Your task to perform on an android device: Search for seafood restaurants on Google Maps Image 0: 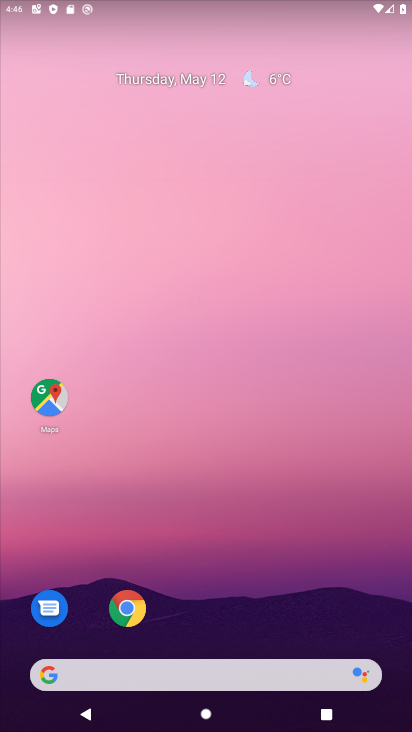
Step 0: click (52, 410)
Your task to perform on an android device: Search for seafood restaurants on Google Maps Image 1: 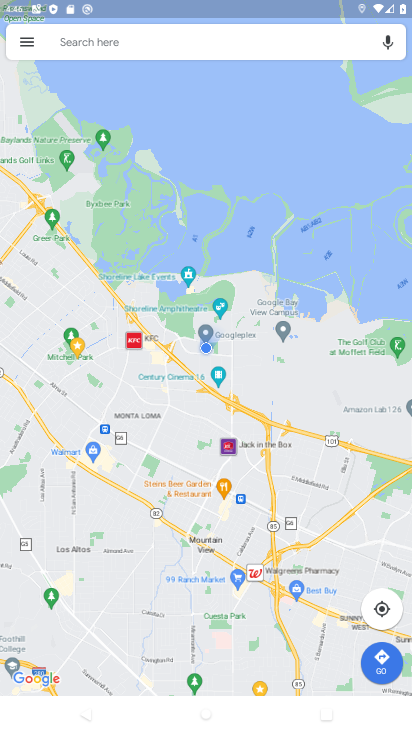
Step 1: click (250, 53)
Your task to perform on an android device: Search for seafood restaurants on Google Maps Image 2: 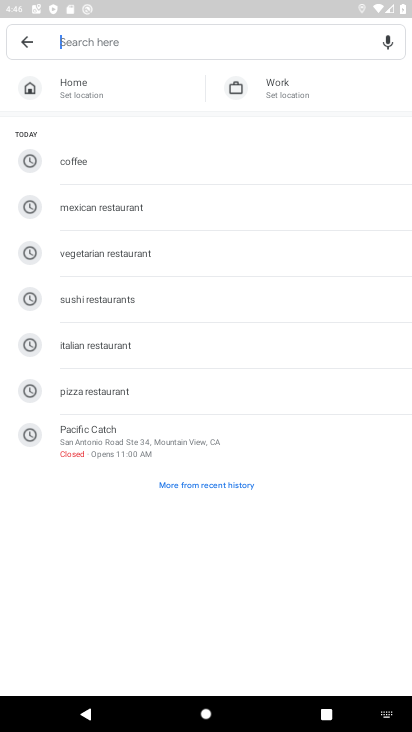
Step 2: type "se"
Your task to perform on an android device: Search for seafood restaurants on Google Maps Image 3: 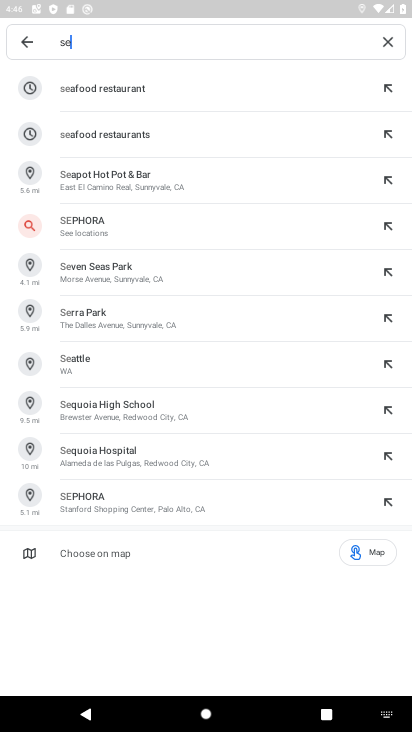
Step 3: type "afood"
Your task to perform on an android device: Search for seafood restaurants on Google Maps Image 4: 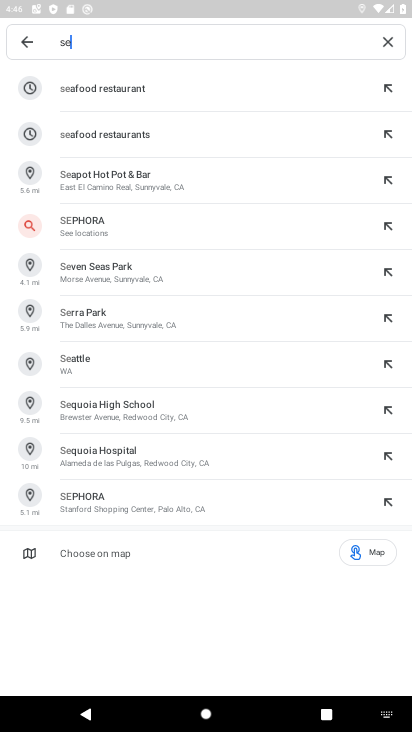
Step 4: click (130, 92)
Your task to perform on an android device: Search for seafood restaurants on Google Maps Image 5: 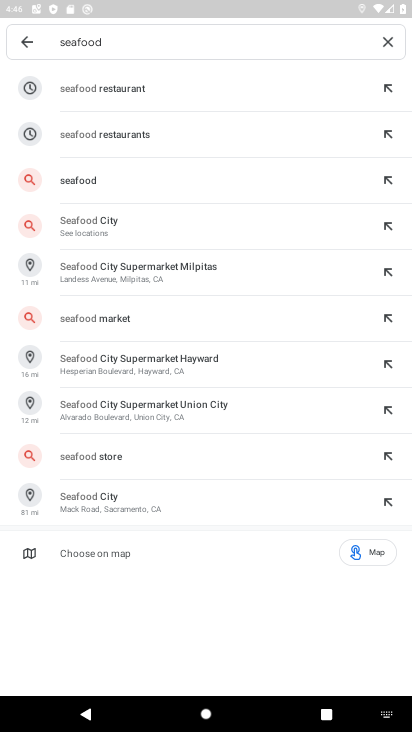
Step 5: click (130, 92)
Your task to perform on an android device: Search for seafood restaurants on Google Maps Image 6: 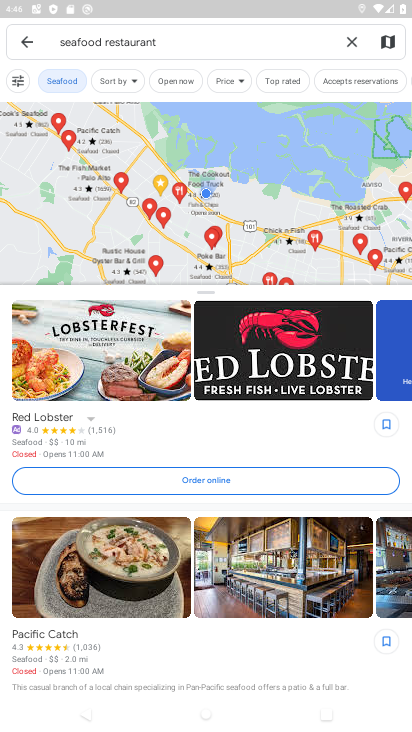
Step 6: task complete